Your task to perform on an android device: Open maps Image 0: 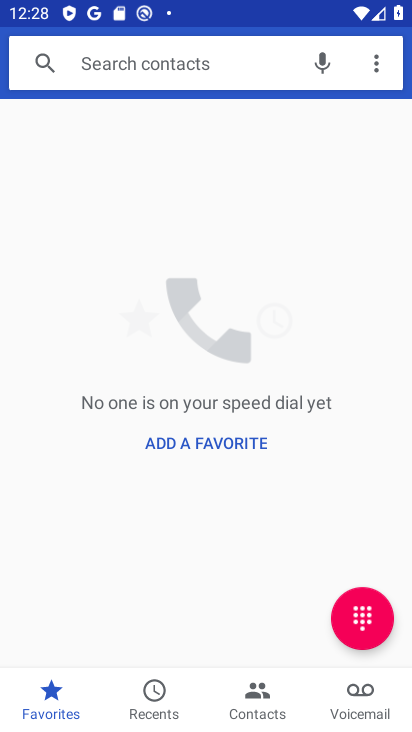
Step 0: press back button
Your task to perform on an android device: Open maps Image 1: 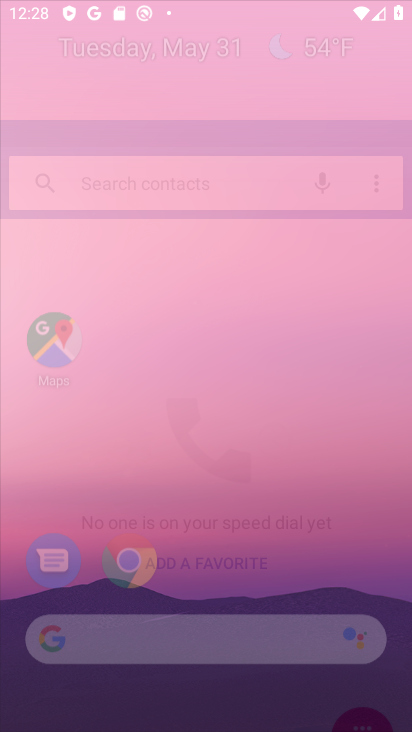
Step 1: press home button
Your task to perform on an android device: Open maps Image 2: 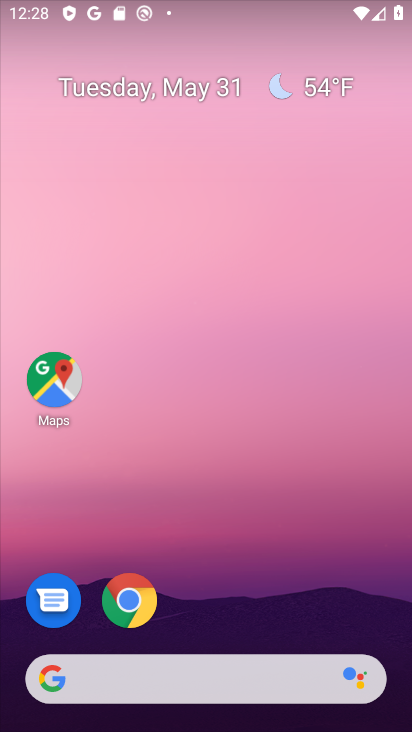
Step 2: click (50, 381)
Your task to perform on an android device: Open maps Image 3: 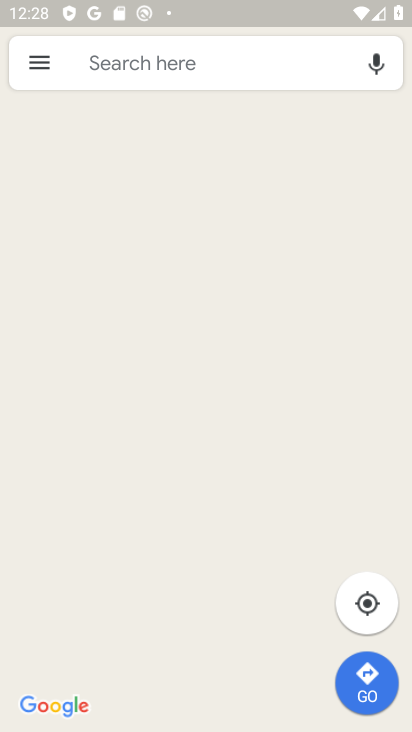
Step 3: task complete